Your task to perform on an android device: Clear the cart on costco.com. Add alienware area 51 to the cart on costco.com Image 0: 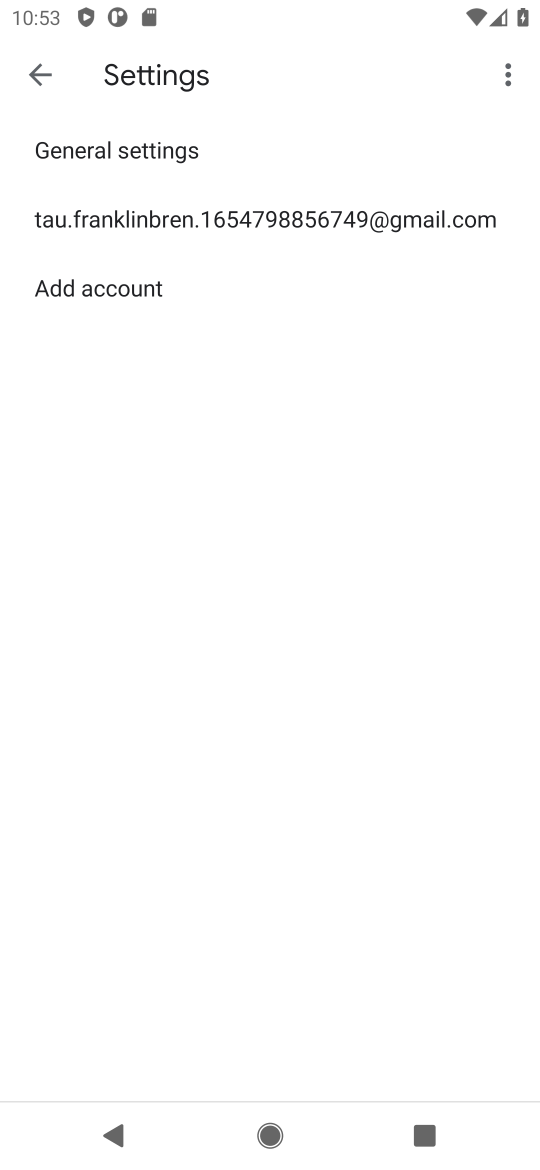
Step 0: press home button
Your task to perform on an android device: Clear the cart on costco.com. Add alienware area 51 to the cart on costco.com Image 1: 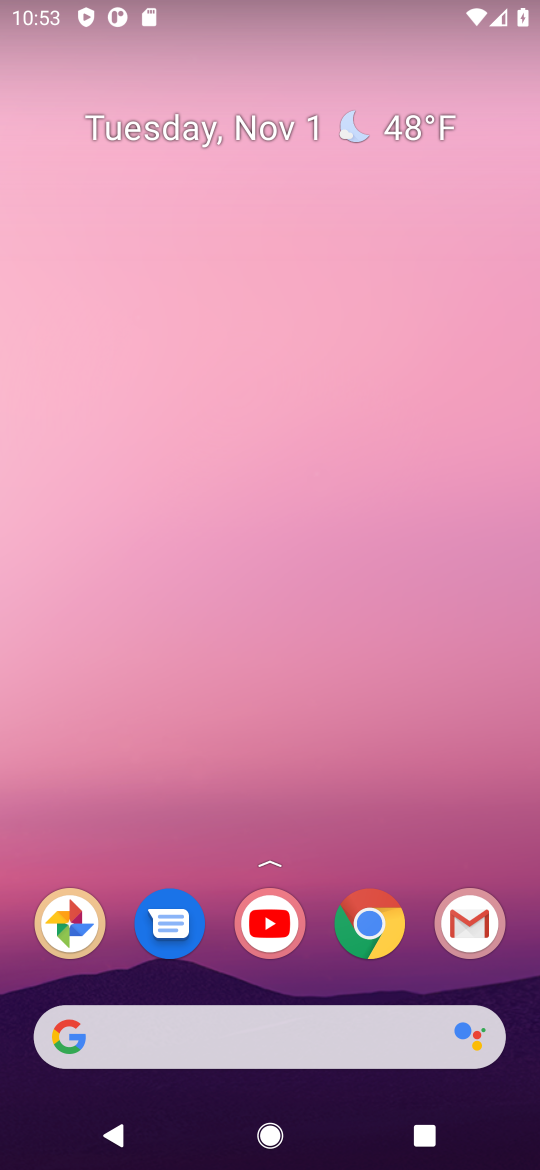
Step 1: click (371, 920)
Your task to perform on an android device: Clear the cart on costco.com. Add alienware area 51 to the cart on costco.com Image 2: 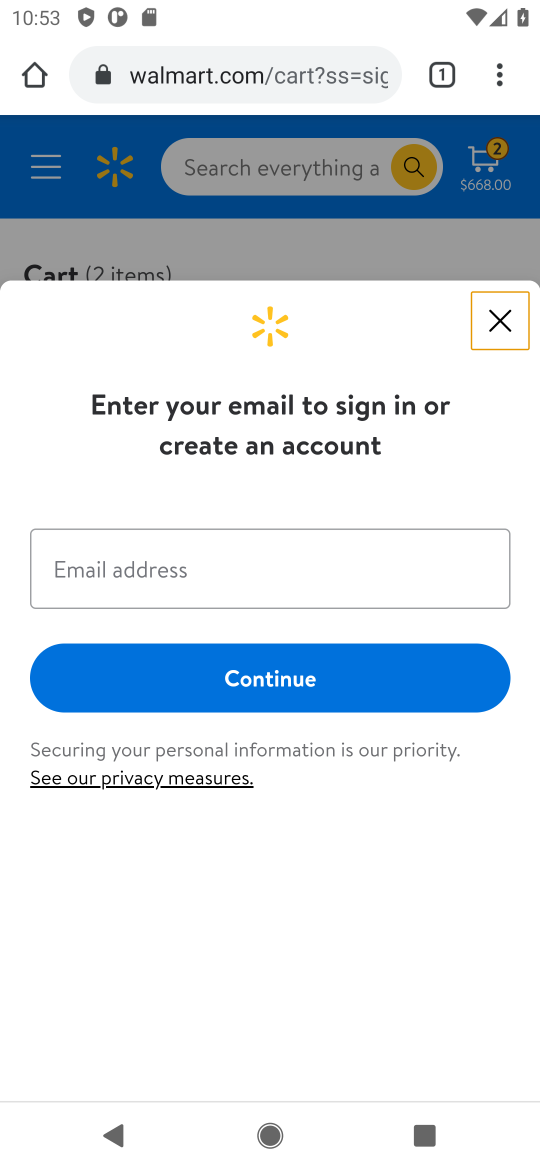
Step 2: click (330, 77)
Your task to perform on an android device: Clear the cart on costco.com. Add alienware area 51 to the cart on costco.com Image 3: 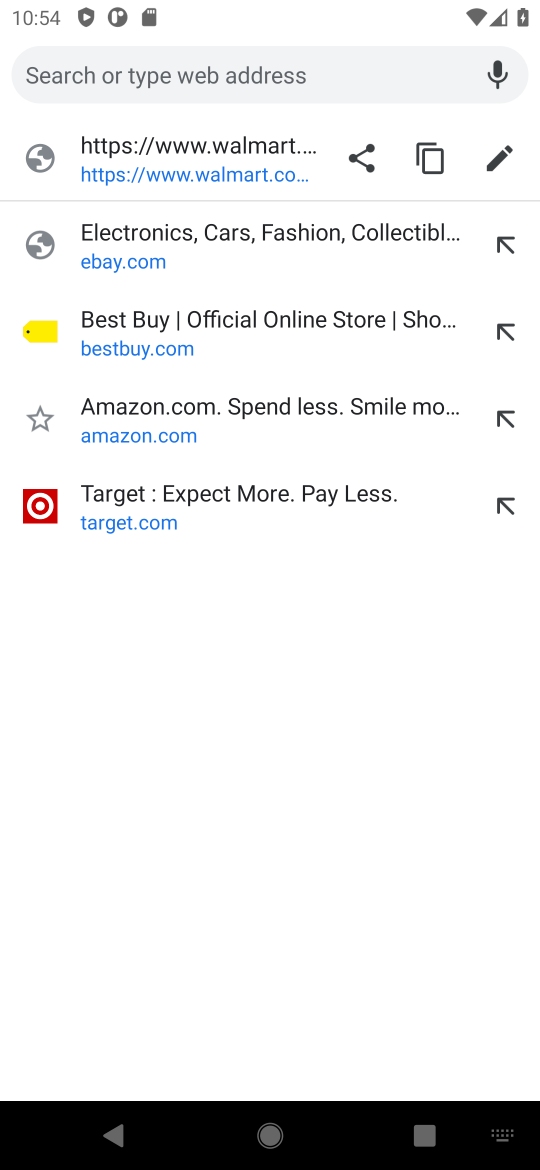
Step 3: type "costco.com"
Your task to perform on an android device: Clear the cart on costco.com. Add alienware area 51 to the cart on costco.com Image 4: 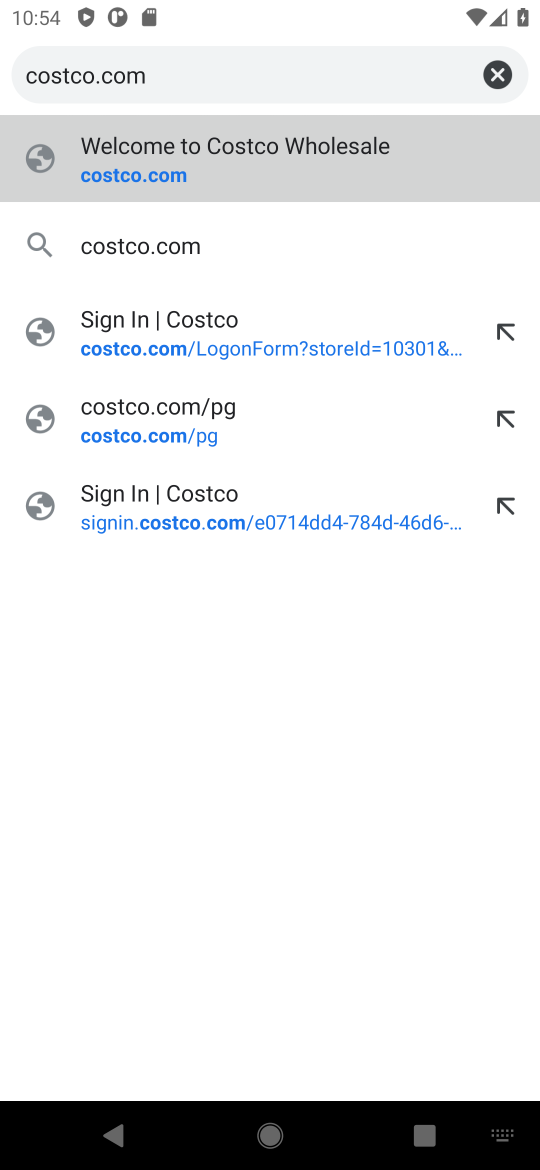
Step 4: click (213, 161)
Your task to perform on an android device: Clear the cart on costco.com. Add alienware area 51 to the cart on costco.com Image 5: 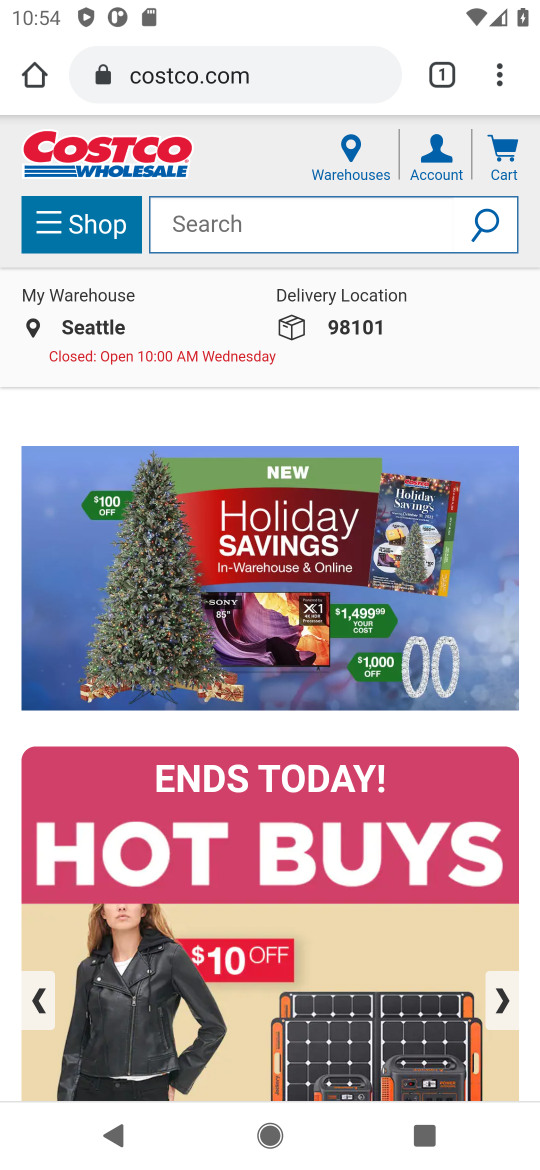
Step 5: click (500, 140)
Your task to perform on an android device: Clear the cart on costco.com. Add alienware area 51 to the cart on costco.com Image 6: 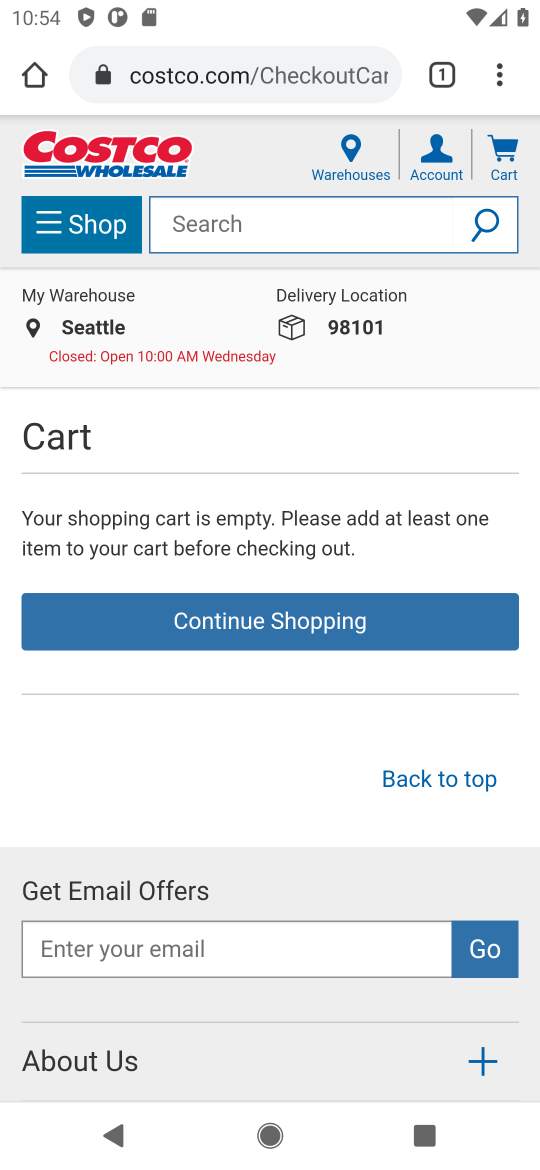
Step 6: click (289, 221)
Your task to perform on an android device: Clear the cart on costco.com. Add alienware area 51 to the cart on costco.com Image 7: 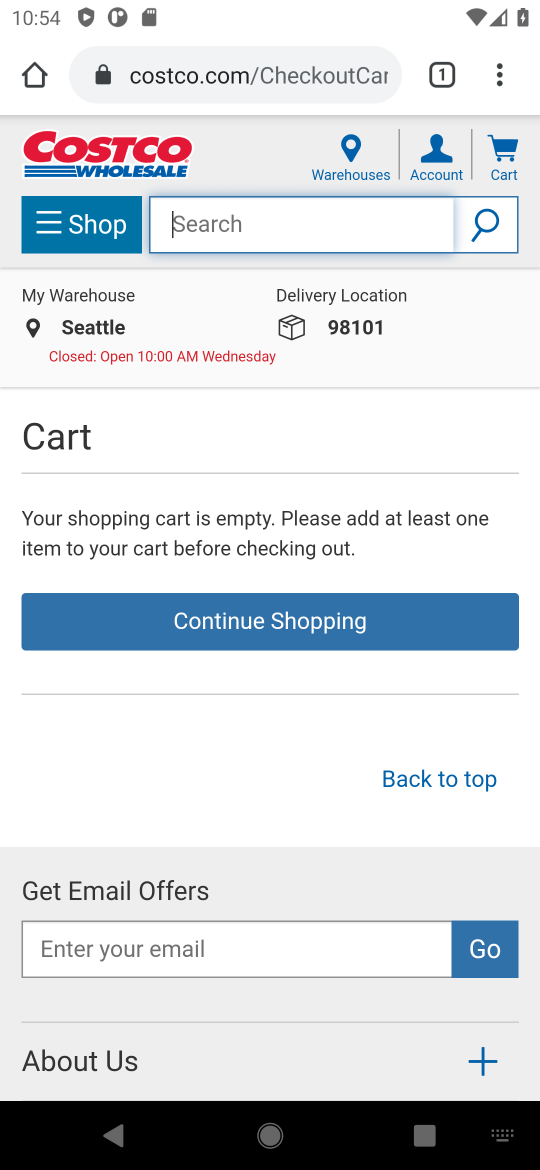
Step 7: type "alienware area 51"
Your task to perform on an android device: Clear the cart on costco.com. Add alienware area 51 to the cart on costco.com Image 8: 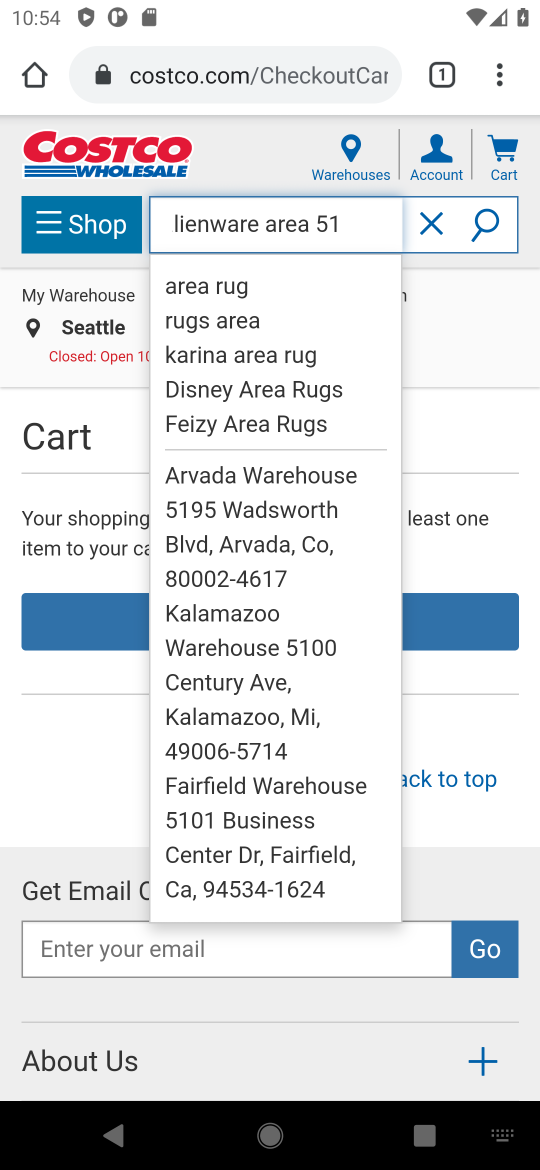
Step 8: press enter
Your task to perform on an android device: Clear the cart on costco.com. Add alienware area 51 to the cart on costco.com Image 9: 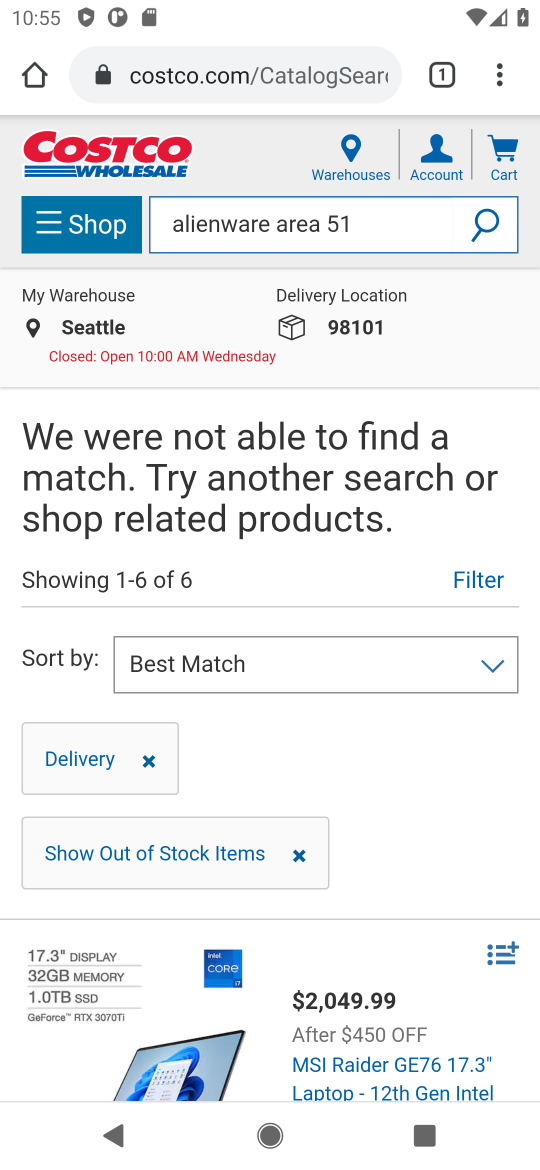
Step 9: task complete